Your task to perform on an android device: Open CNN.com Image 0: 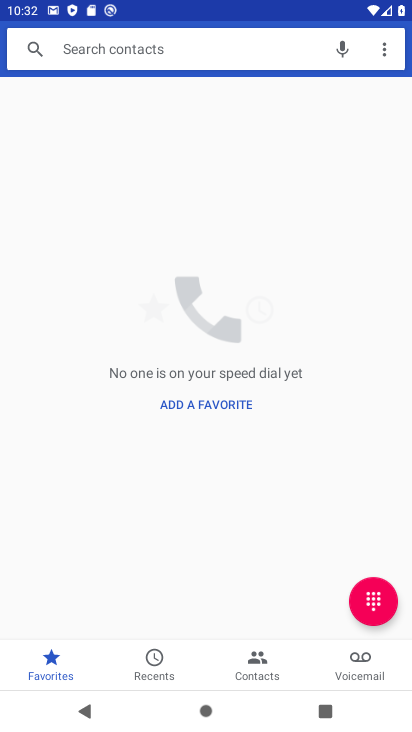
Step 0: press home button
Your task to perform on an android device: Open CNN.com Image 1: 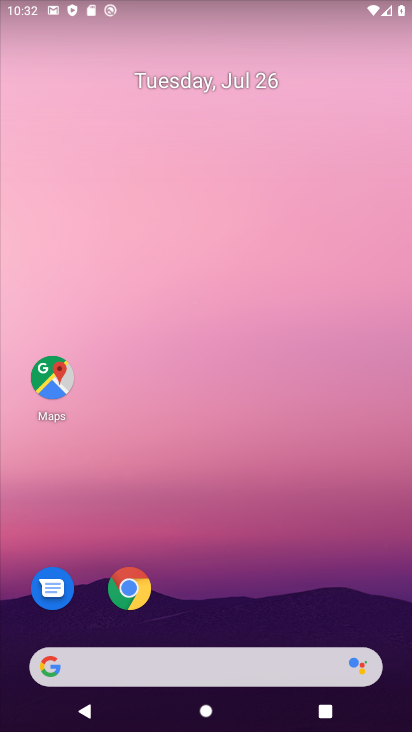
Step 1: click (230, 655)
Your task to perform on an android device: Open CNN.com Image 2: 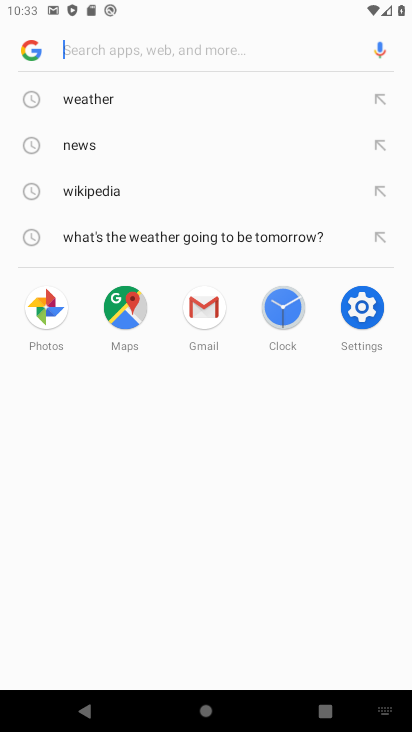
Step 2: type "CNN.com"
Your task to perform on an android device: Open CNN.com Image 3: 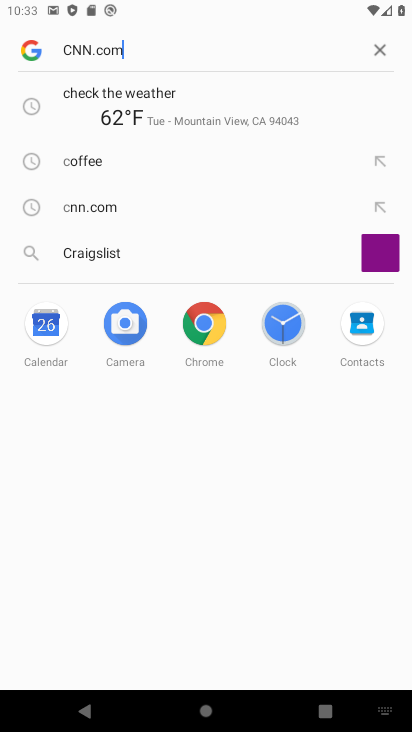
Step 3: press enter
Your task to perform on an android device: Open CNN.com Image 4: 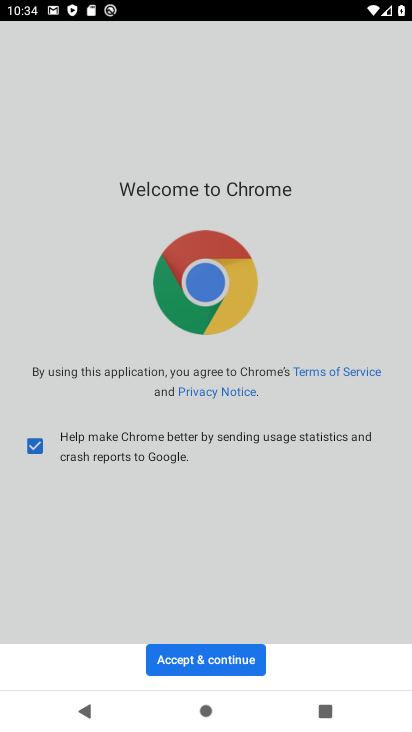
Step 4: click (240, 663)
Your task to perform on an android device: Open CNN.com Image 5: 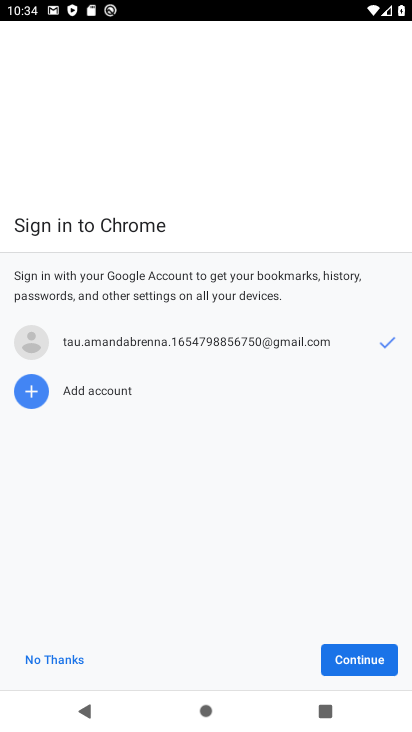
Step 5: click (350, 652)
Your task to perform on an android device: Open CNN.com Image 6: 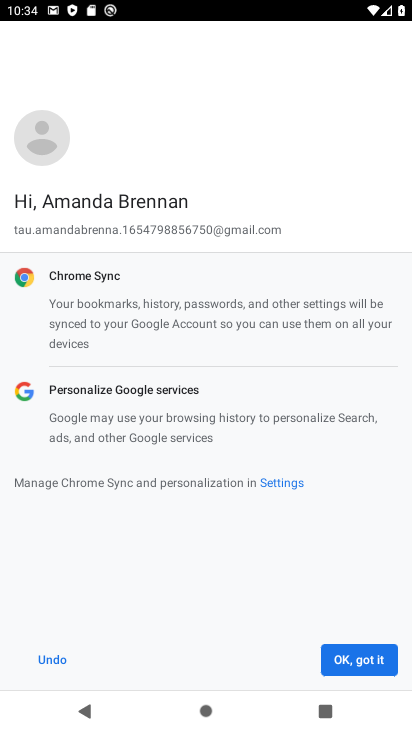
Step 6: click (351, 664)
Your task to perform on an android device: Open CNN.com Image 7: 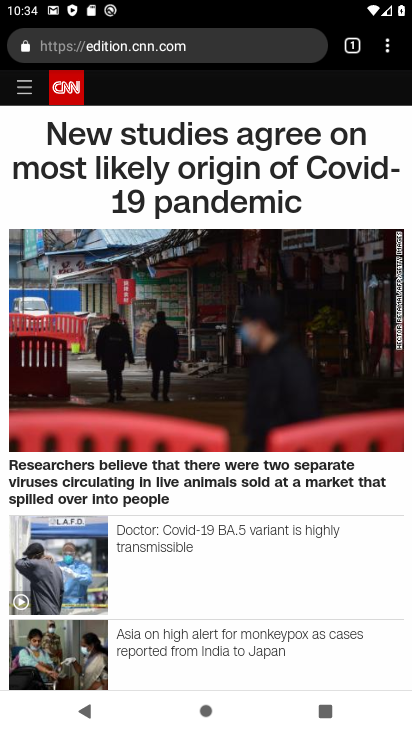
Step 7: task complete